Your task to perform on an android device: Open calendar and show me the first week of next month Image 0: 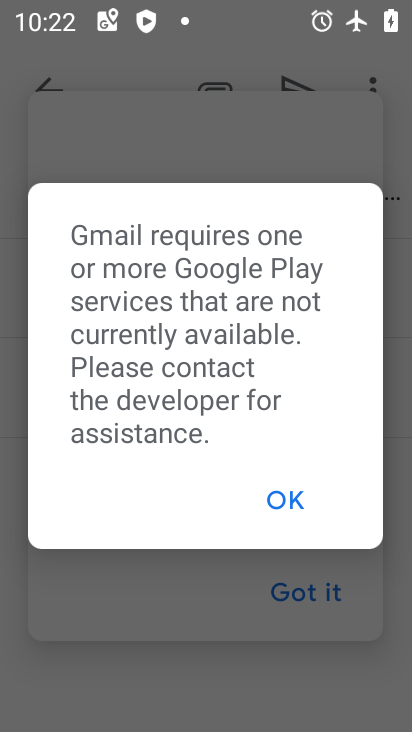
Step 0: press home button
Your task to perform on an android device: Open calendar and show me the first week of next month Image 1: 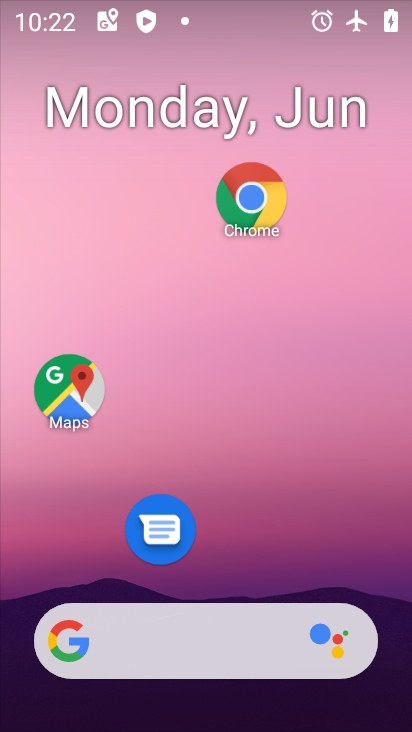
Step 1: drag from (252, 556) to (208, 85)
Your task to perform on an android device: Open calendar and show me the first week of next month Image 2: 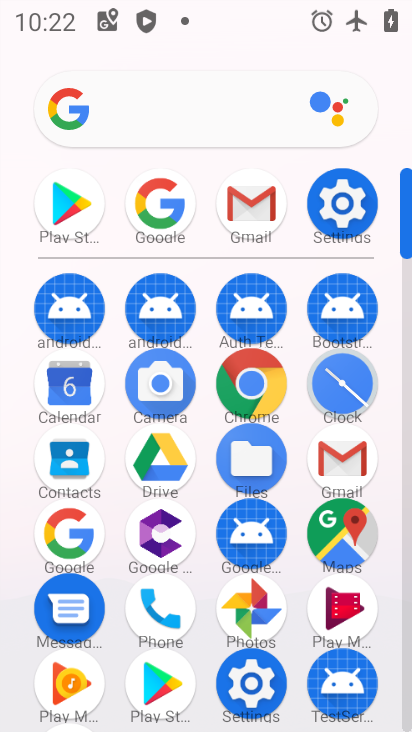
Step 2: click (79, 386)
Your task to perform on an android device: Open calendar and show me the first week of next month Image 3: 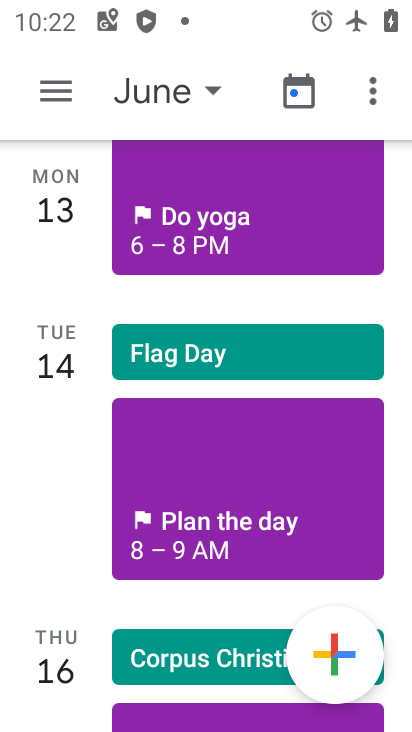
Step 3: click (194, 104)
Your task to perform on an android device: Open calendar and show me the first week of next month Image 4: 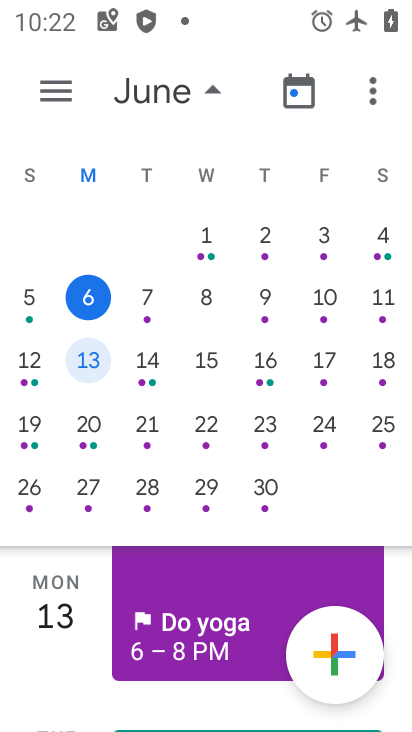
Step 4: task complete